Your task to perform on an android device: Check the news Image 0: 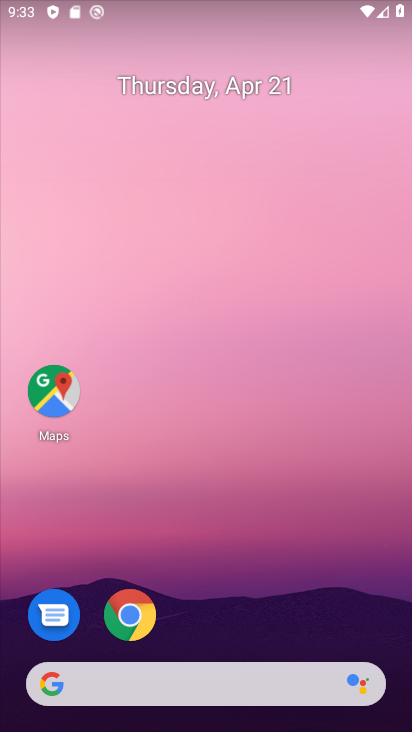
Step 0: drag from (0, 290) to (327, 290)
Your task to perform on an android device: Check the news Image 1: 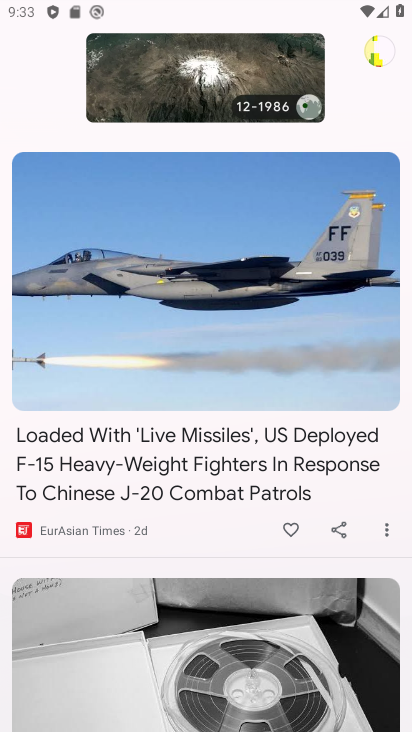
Step 1: task complete